Your task to perform on an android device: install app "Yahoo Mail" Image 0: 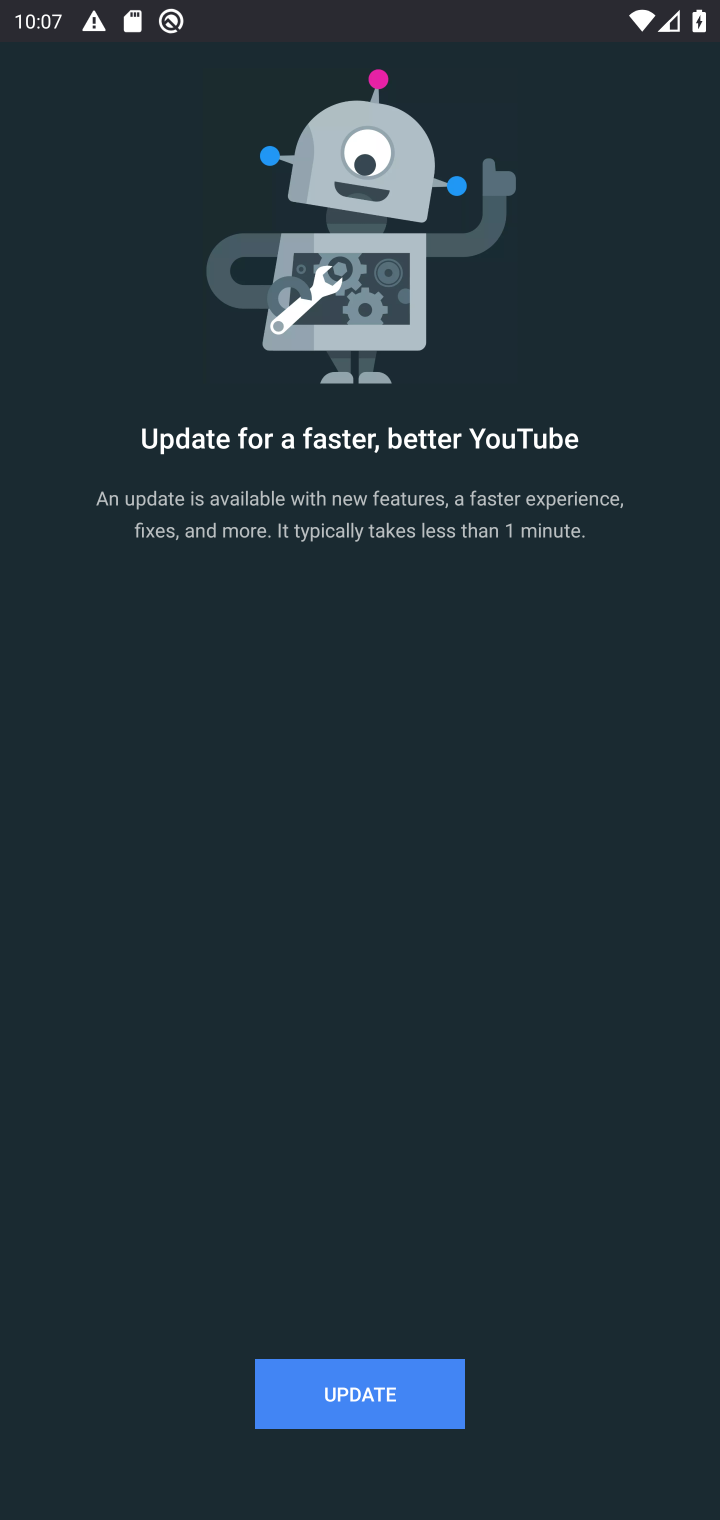
Step 0: press home button
Your task to perform on an android device: install app "Yahoo Mail" Image 1: 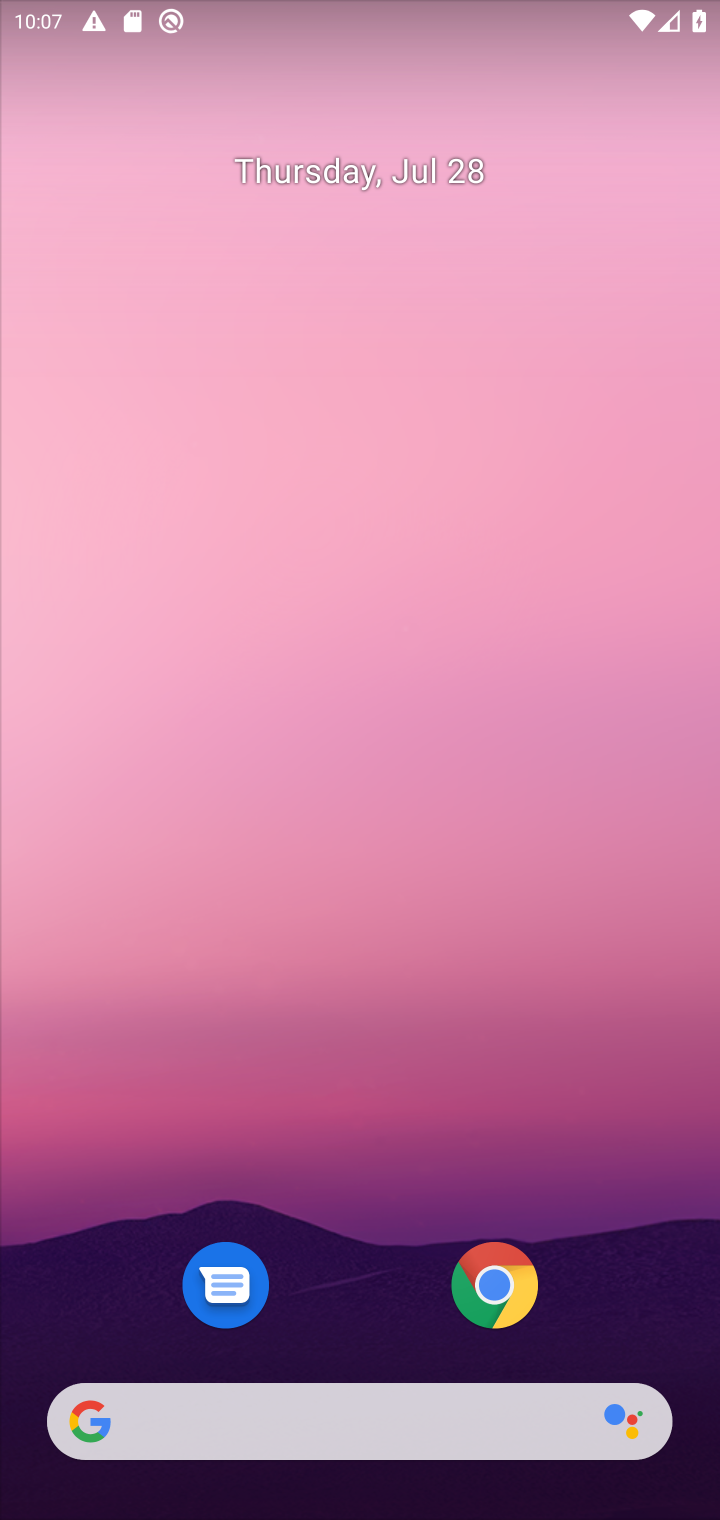
Step 1: drag from (567, 1054) to (475, 56)
Your task to perform on an android device: install app "Yahoo Mail" Image 2: 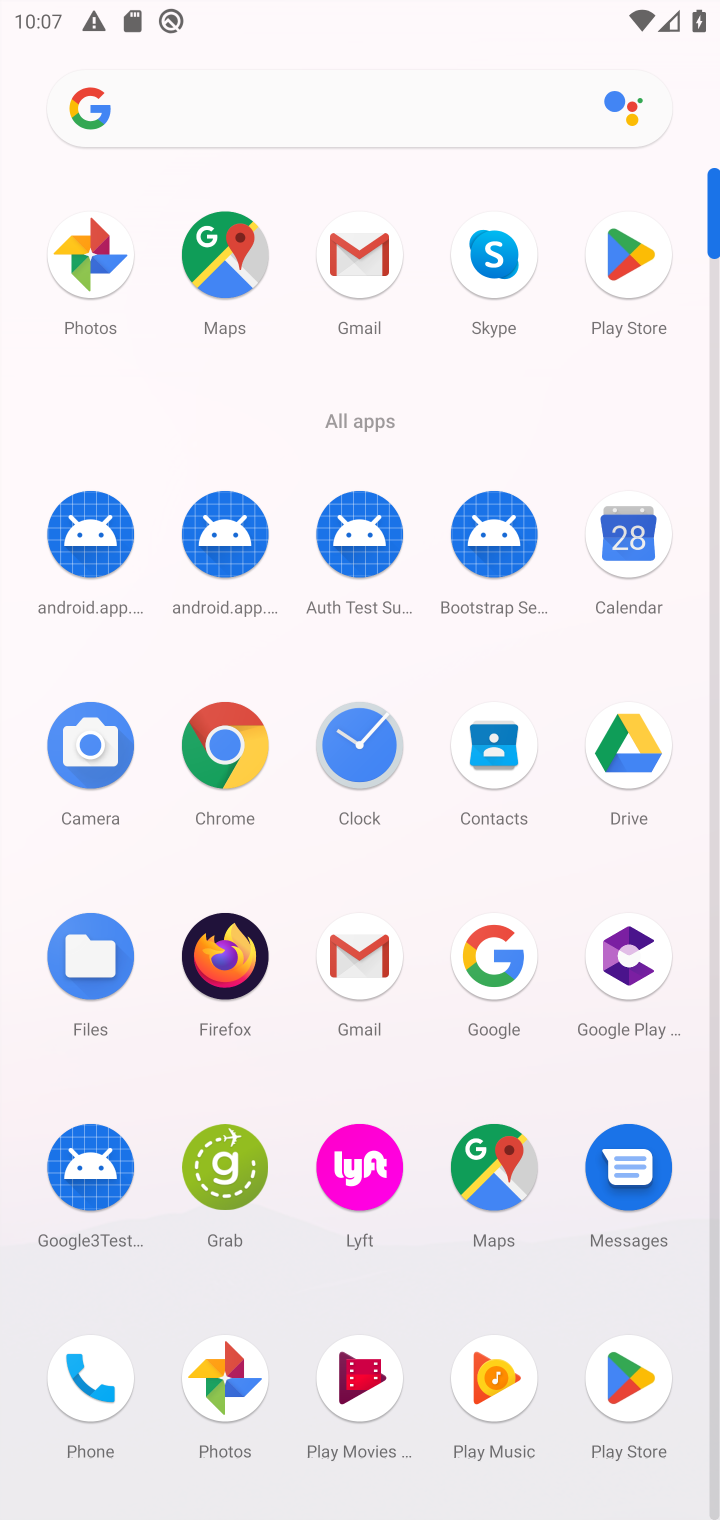
Step 2: click (620, 262)
Your task to perform on an android device: install app "Yahoo Mail" Image 3: 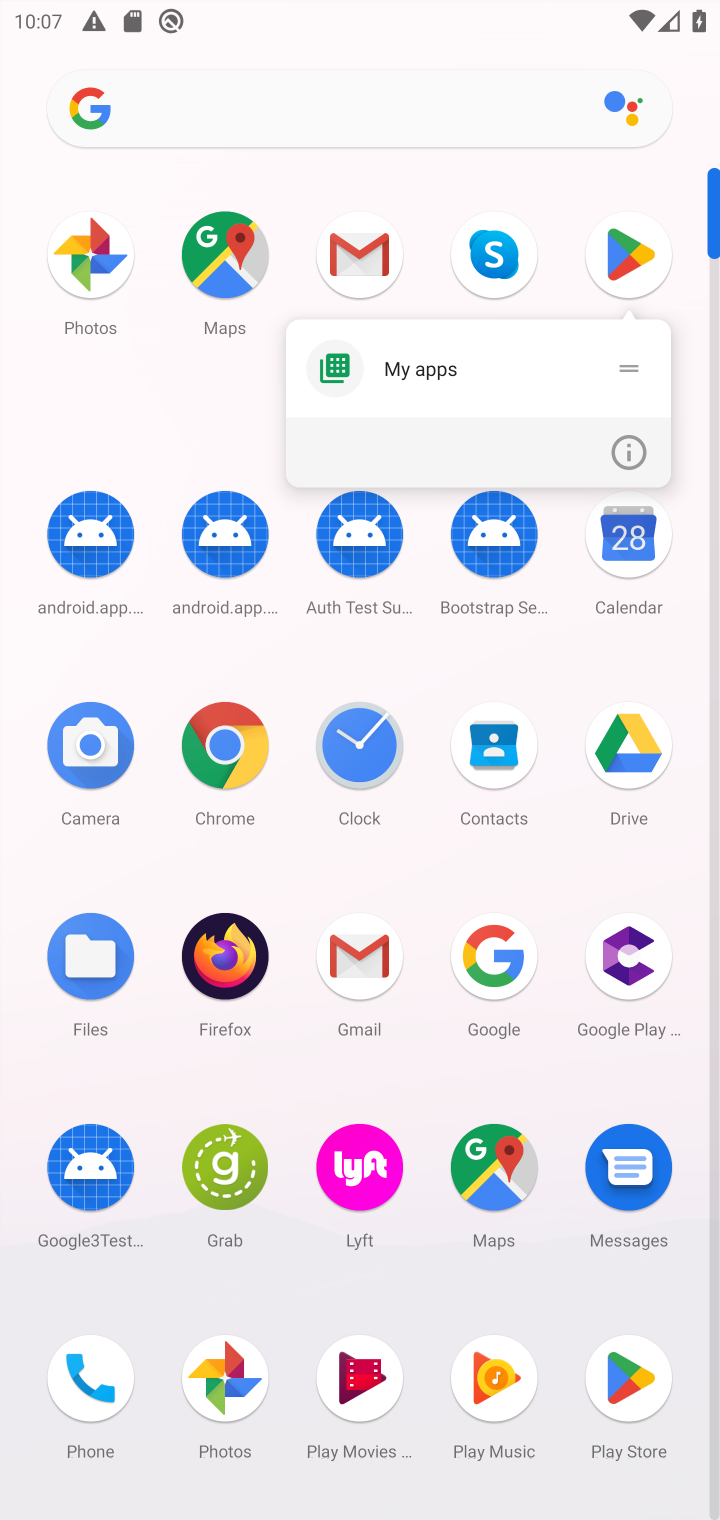
Step 3: click (620, 262)
Your task to perform on an android device: install app "Yahoo Mail" Image 4: 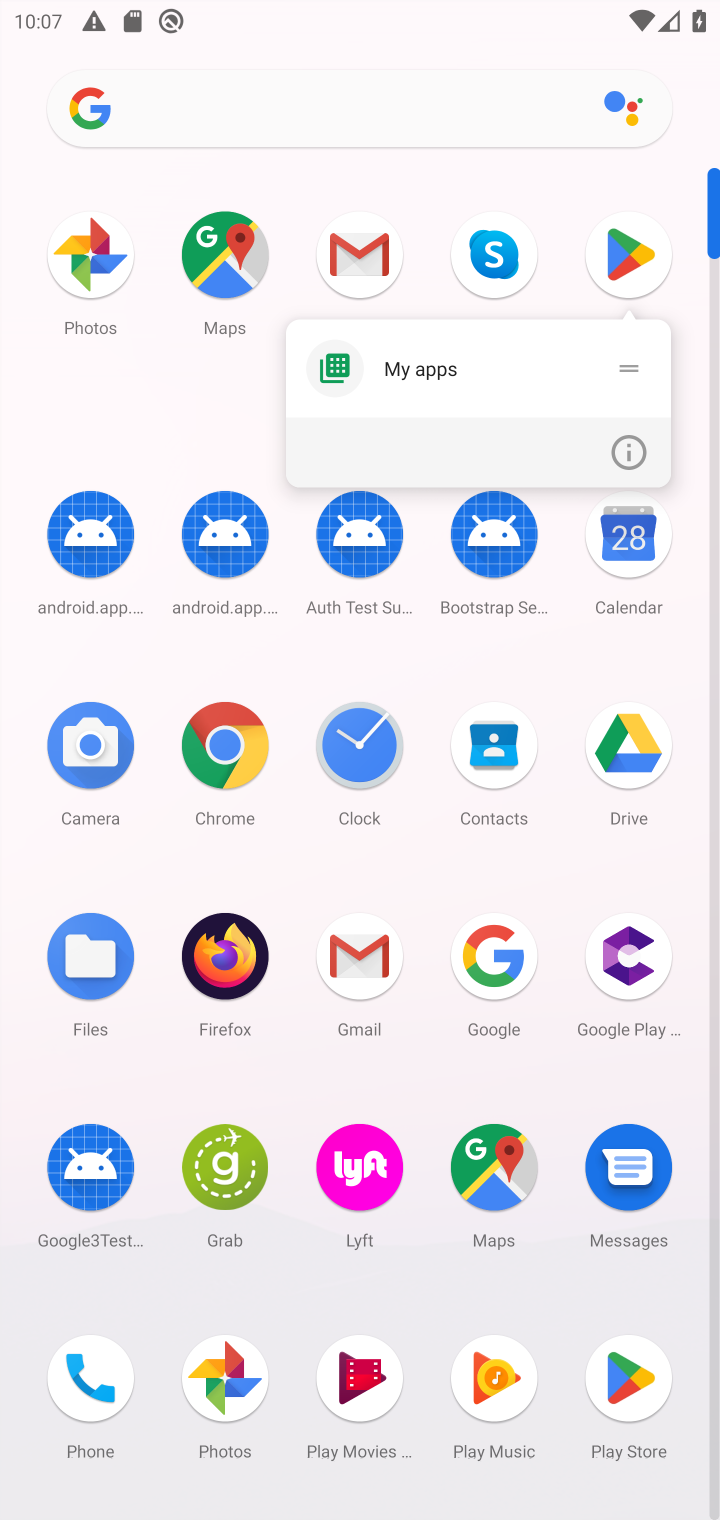
Step 4: click (620, 262)
Your task to perform on an android device: install app "Yahoo Mail" Image 5: 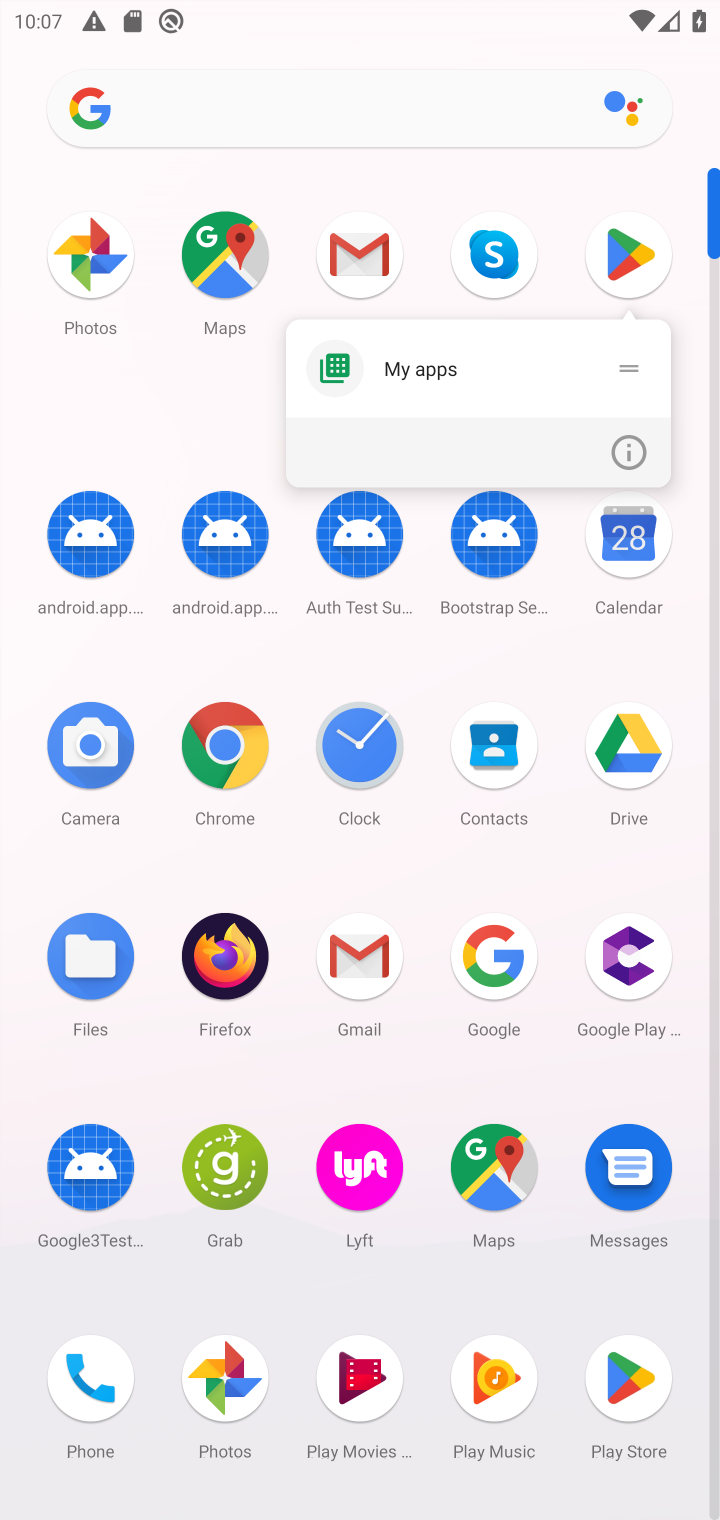
Step 5: click (646, 228)
Your task to perform on an android device: install app "Yahoo Mail" Image 6: 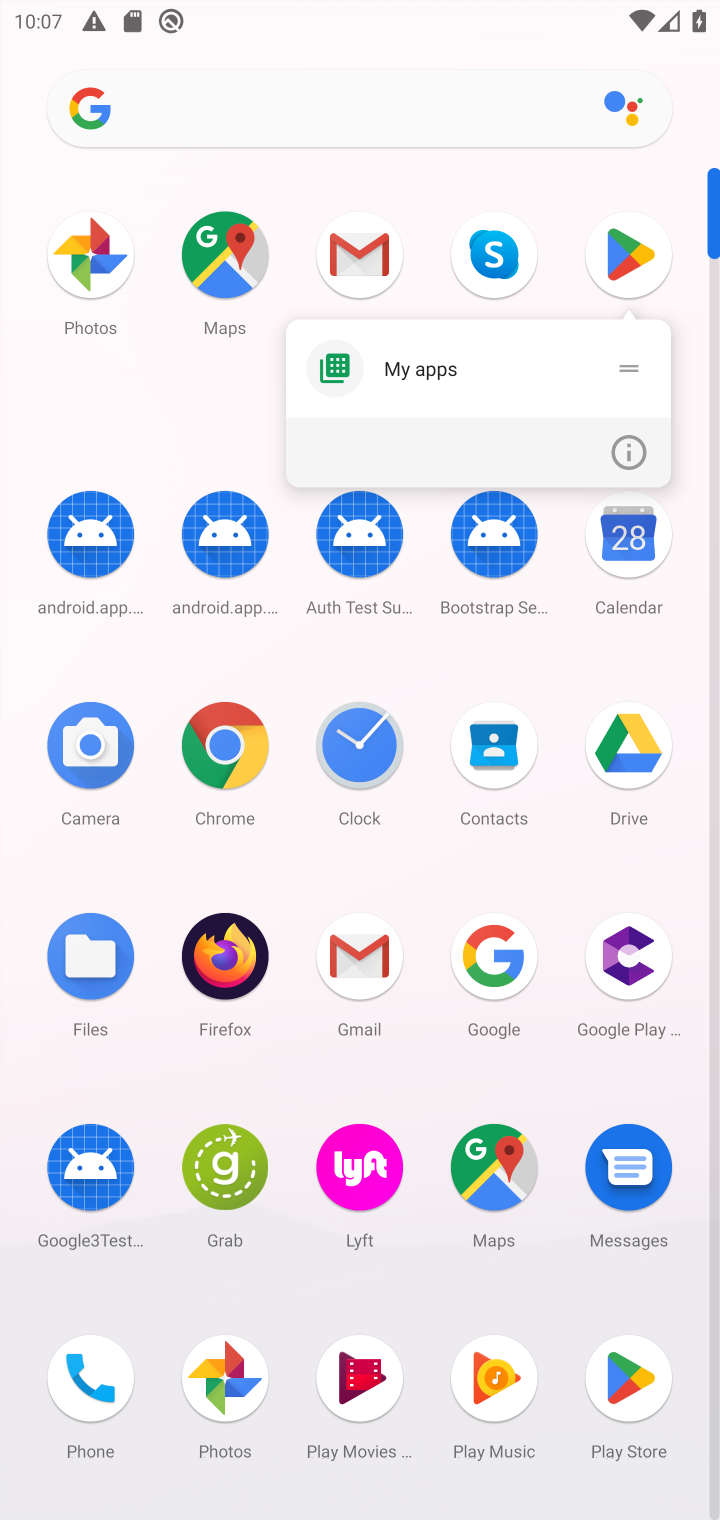
Step 6: click (633, 255)
Your task to perform on an android device: install app "Yahoo Mail" Image 7: 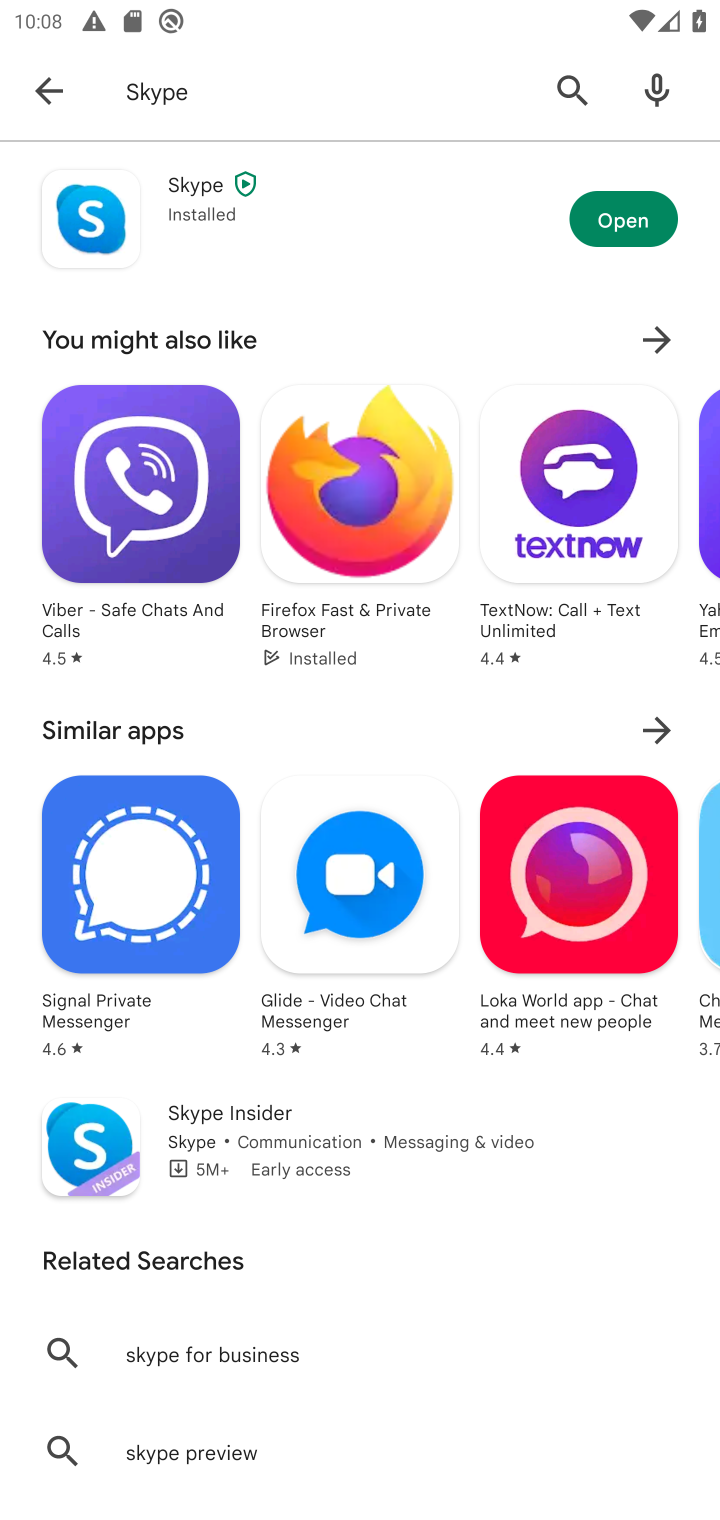
Step 7: click (377, 88)
Your task to perform on an android device: install app "Yahoo Mail" Image 8: 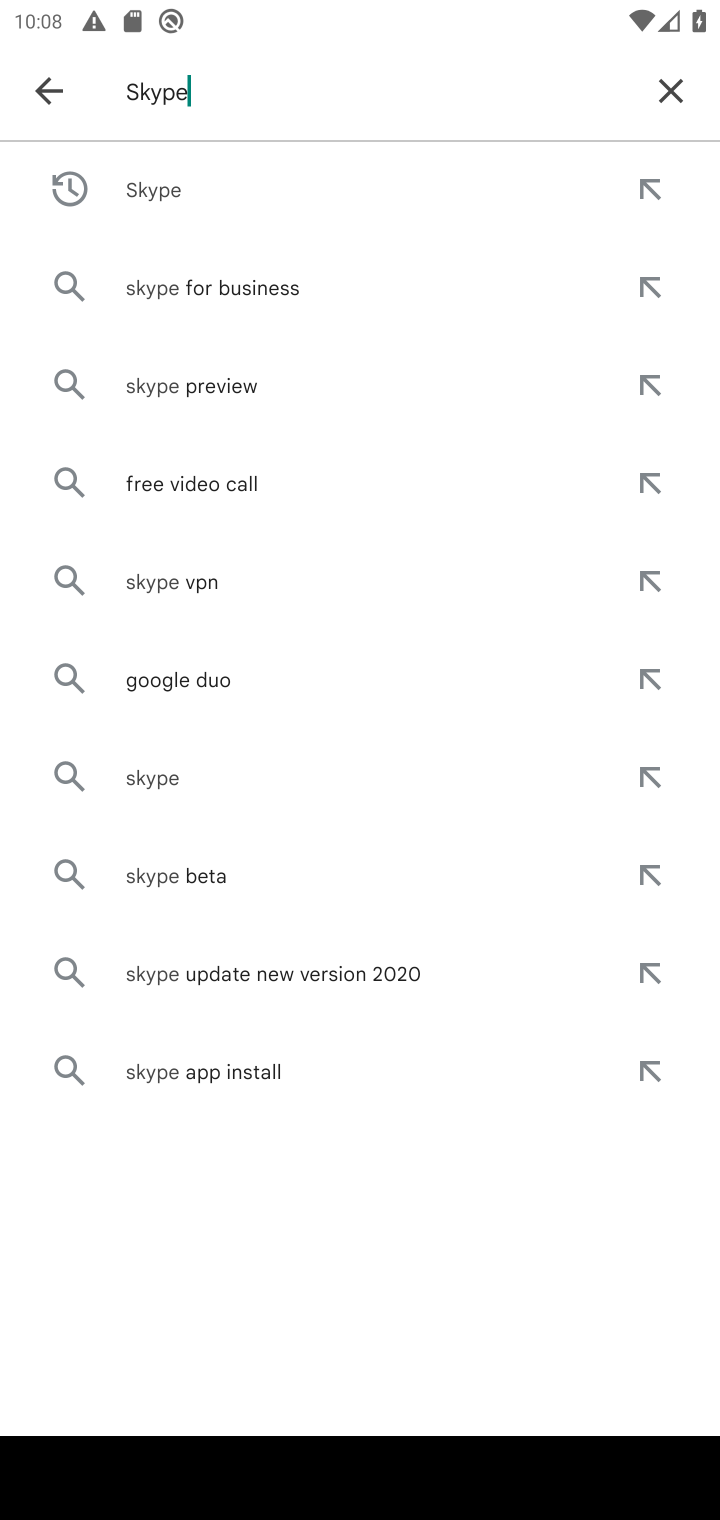
Step 8: click (666, 87)
Your task to perform on an android device: install app "Yahoo Mail" Image 9: 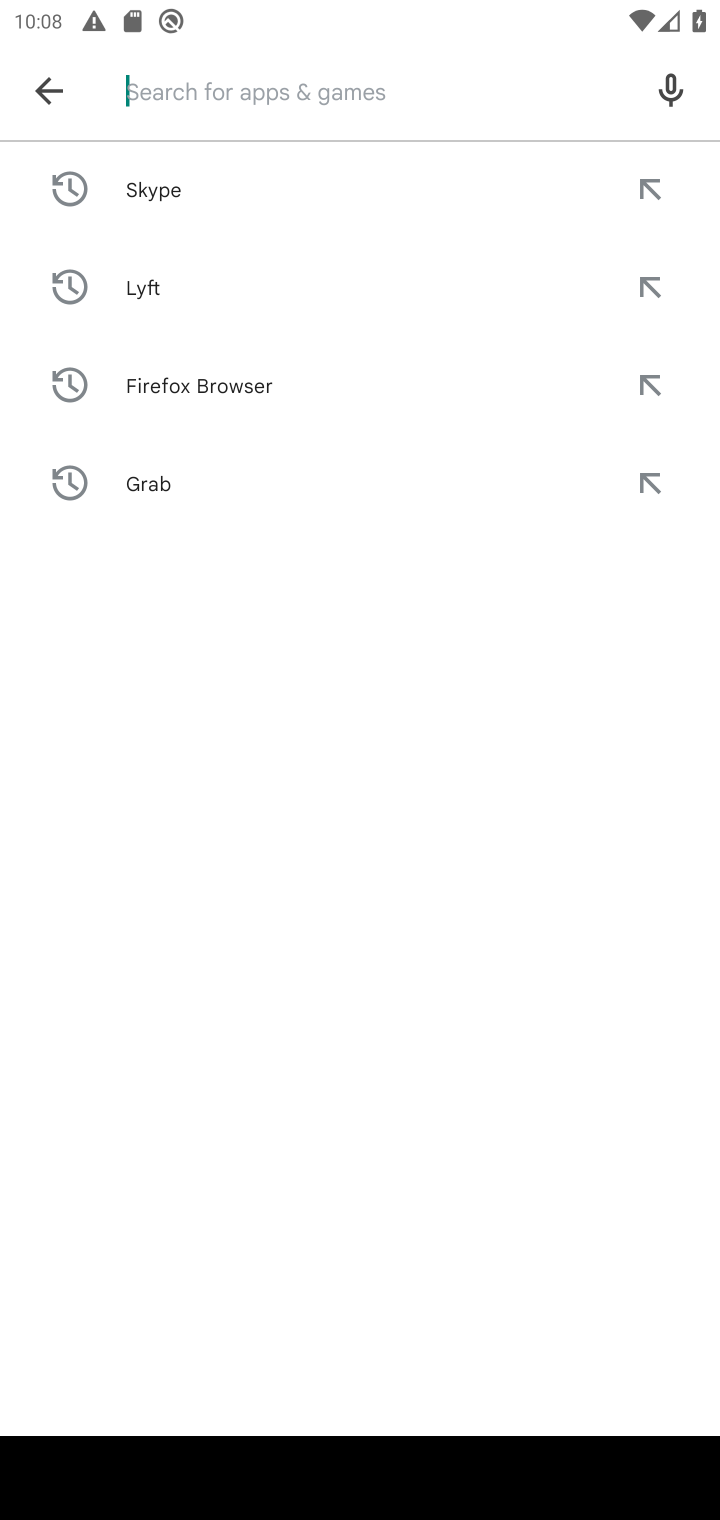
Step 9: type "Yahoo Mail"
Your task to perform on an android device: install app "Yahoo Mail" Image 10: 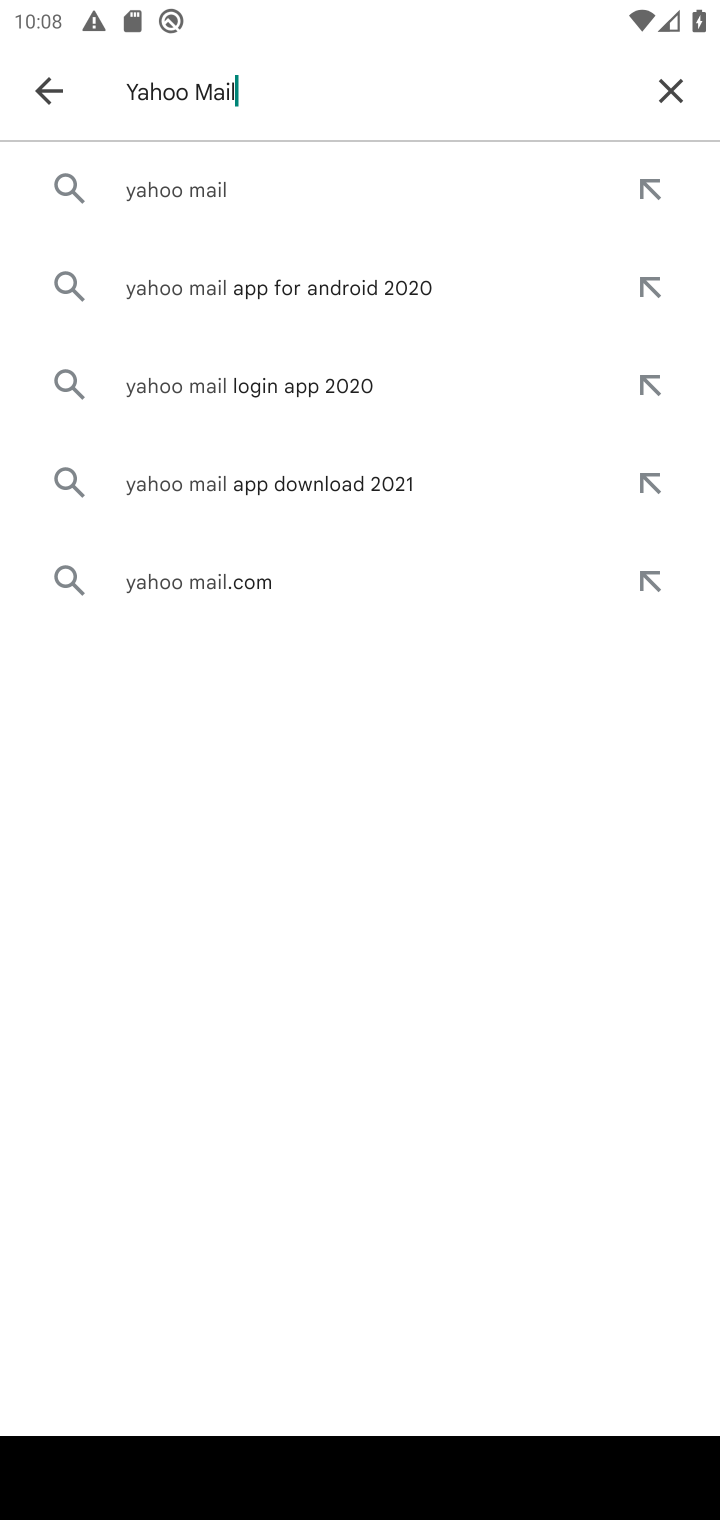
Step 10: press enter
Your task to perform on an android device: install app "Yahoo Mail" Image 11: 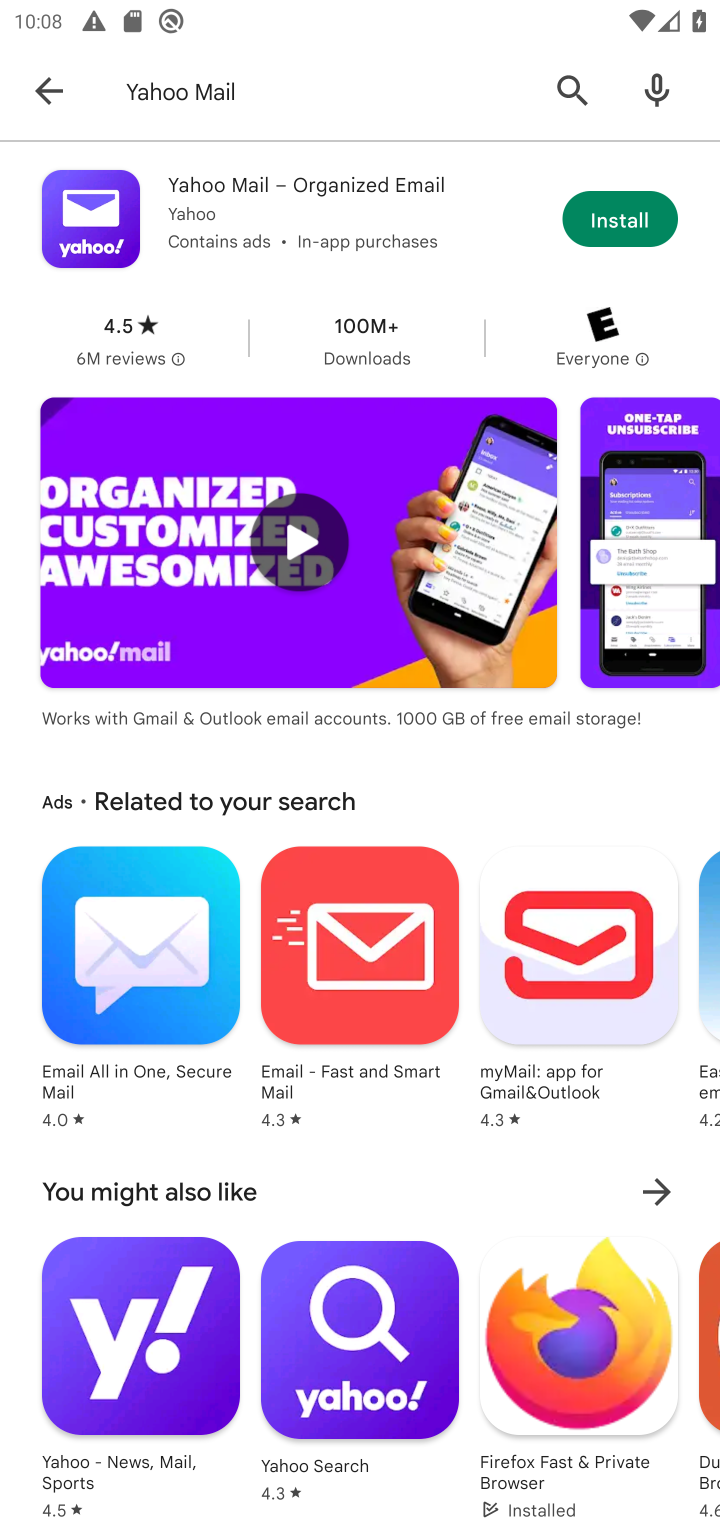
Step 11: click (605, 220)
Your task to perform on an android device: install app "Yahoo Mail" Image 12: 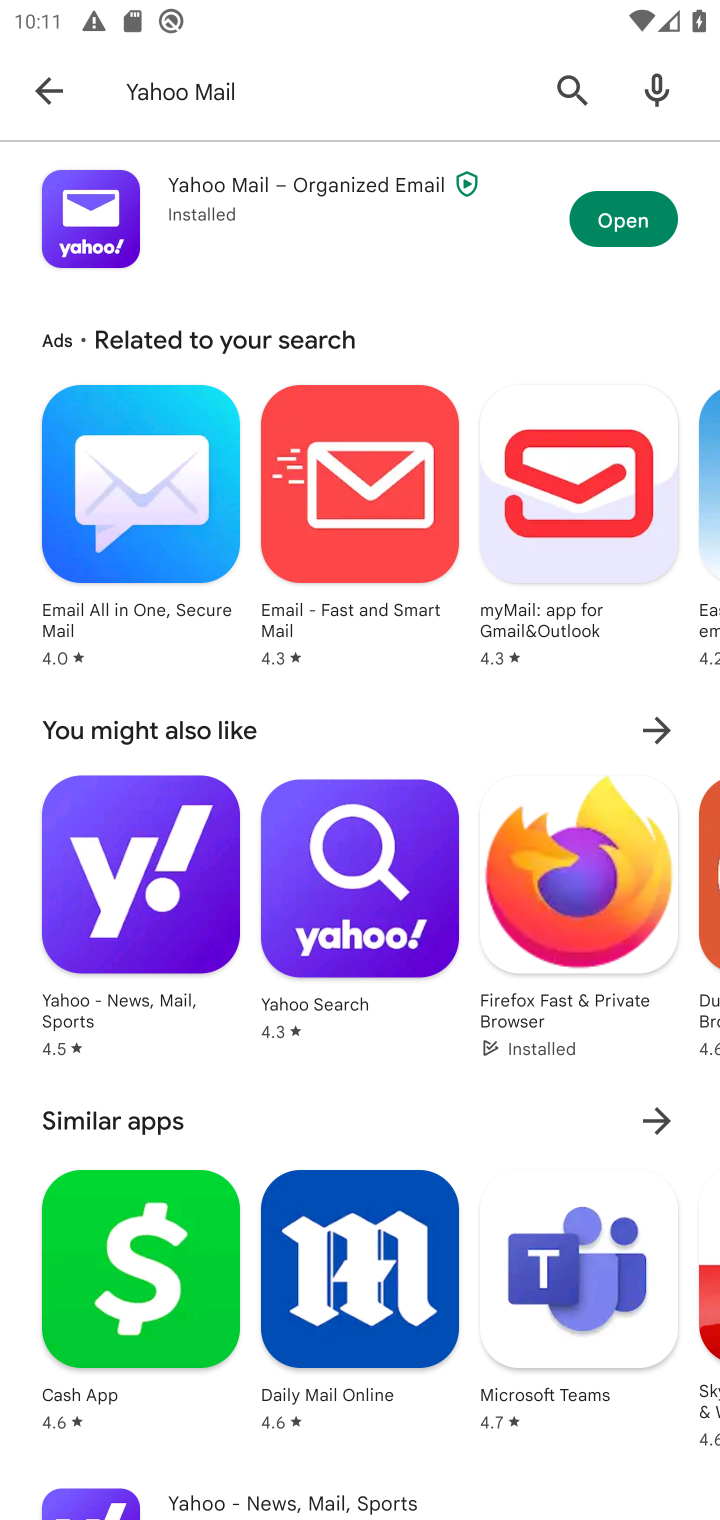
Step 12: task complete